Your task to perform on an android device: change notification settings in the gmail app Image 0: 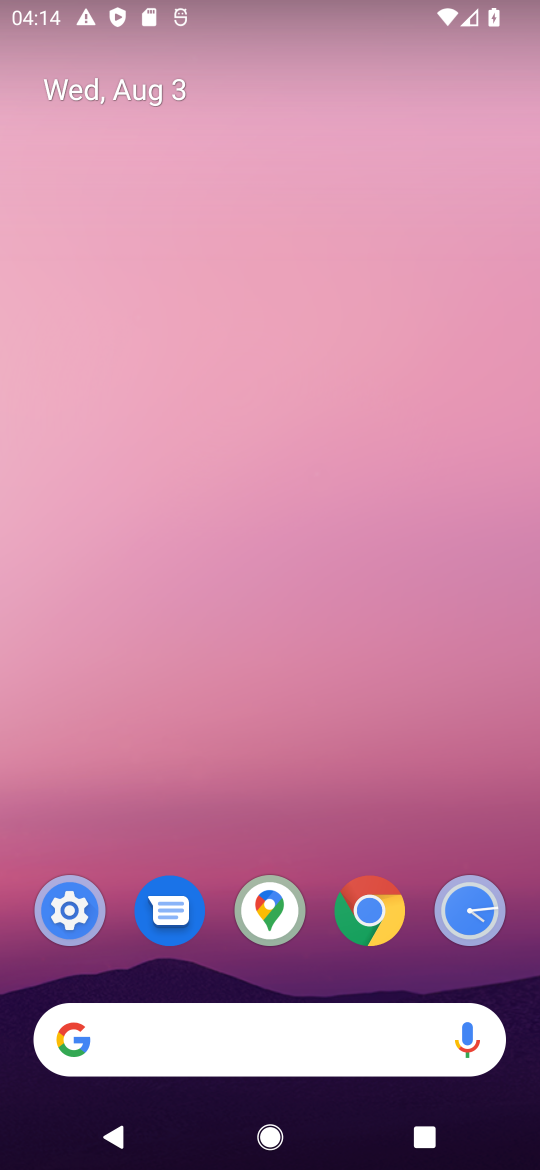
Step 0: press home button
Your task to perform on an android device: change notification settings in the gmail app Image 1: 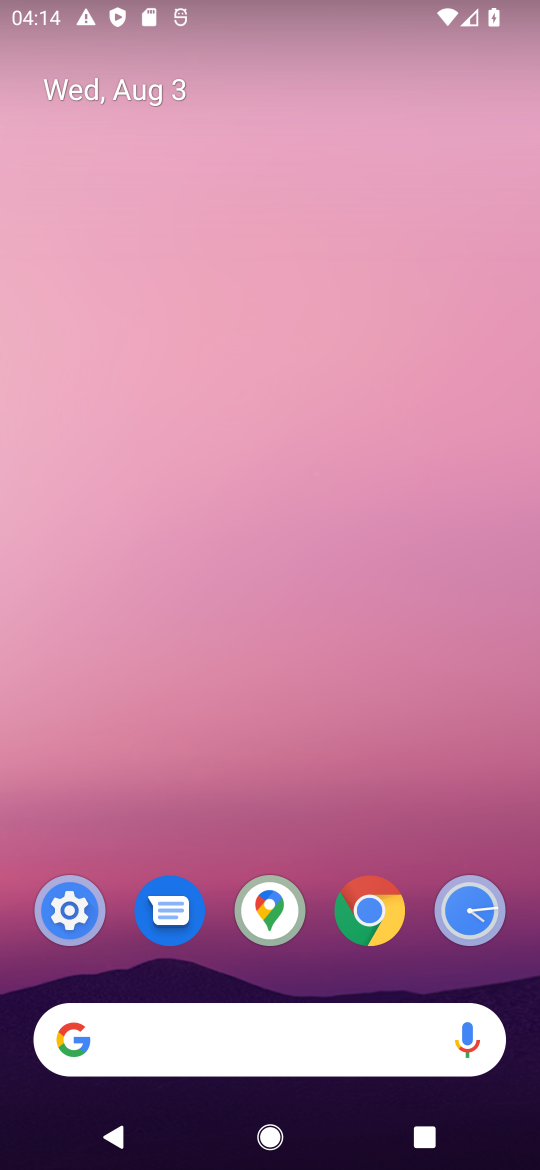
Step 1: drag from (312, 870) to (352, 55)
Your task to perform on an android device: change notification settings in the gmail app Image 2: 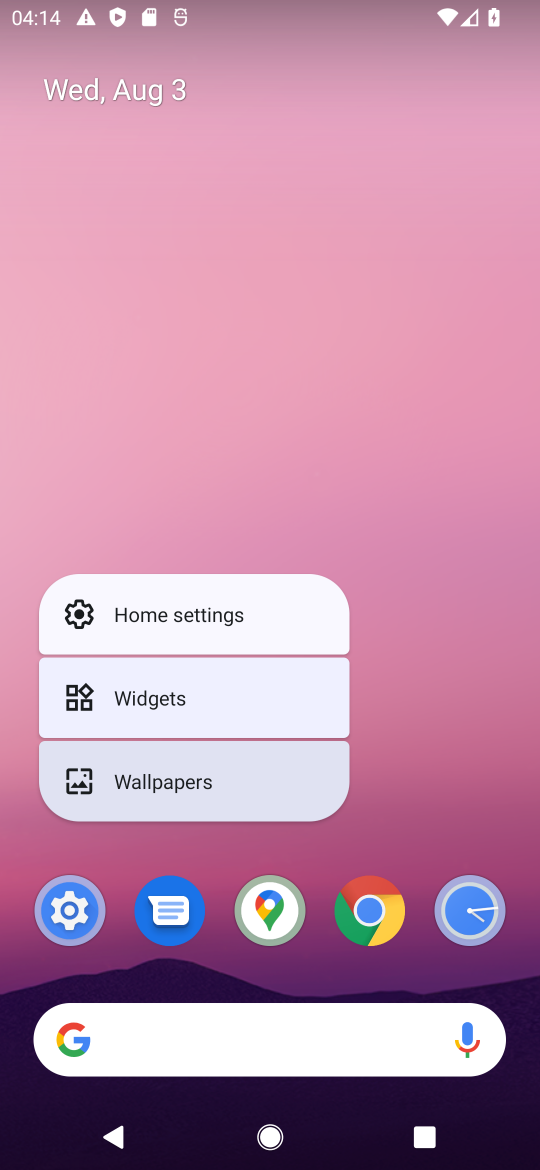
Step 2: click (440, 736)
Your task to perform on an android device: change notification settings in the gmail app Image 3: 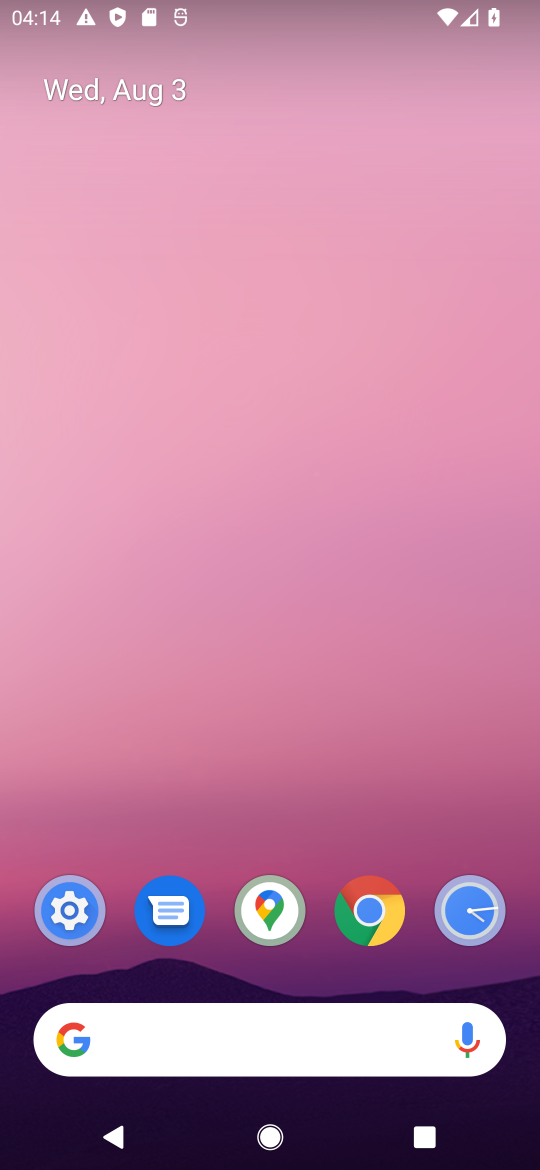
Step 3: drag from (427, 851) to (442, 61)
Your task to perform on an android device: change notification settings in the gmail app Image 4: 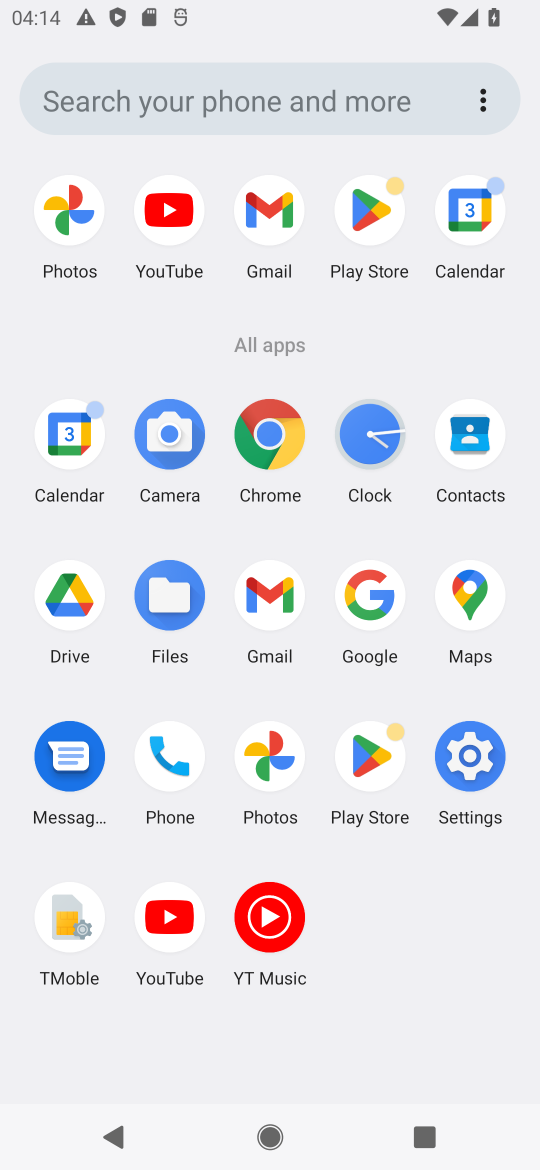
Step 4: click (268, 582)
Your task to perform on an android device: change notification settings in the gmail app Image 5: 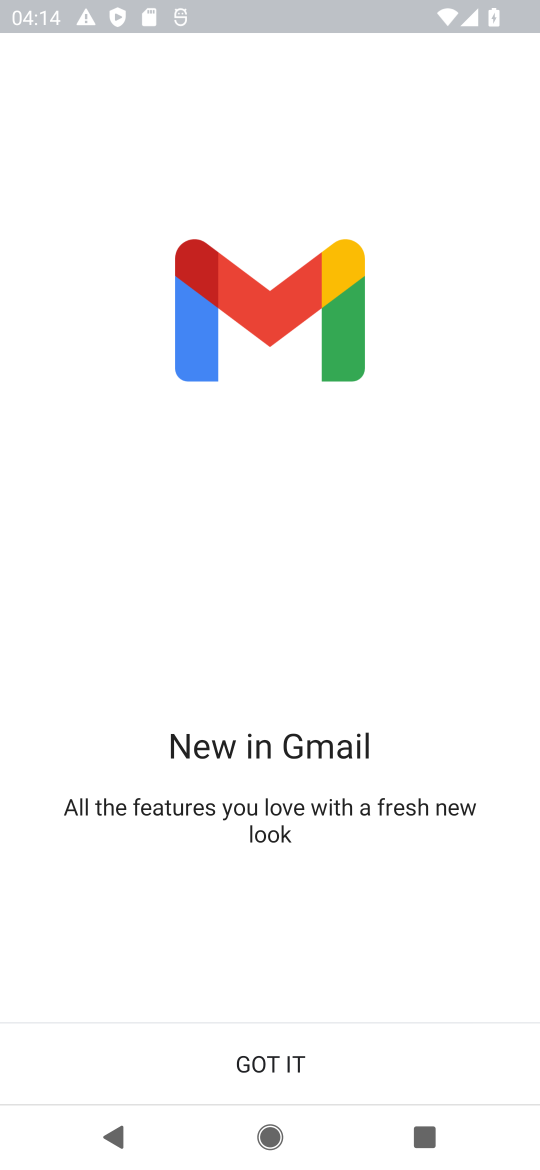
Step 5: click (279, 1072)
Your task to perform on an android device: change notification settings in the gmail app Image 6: 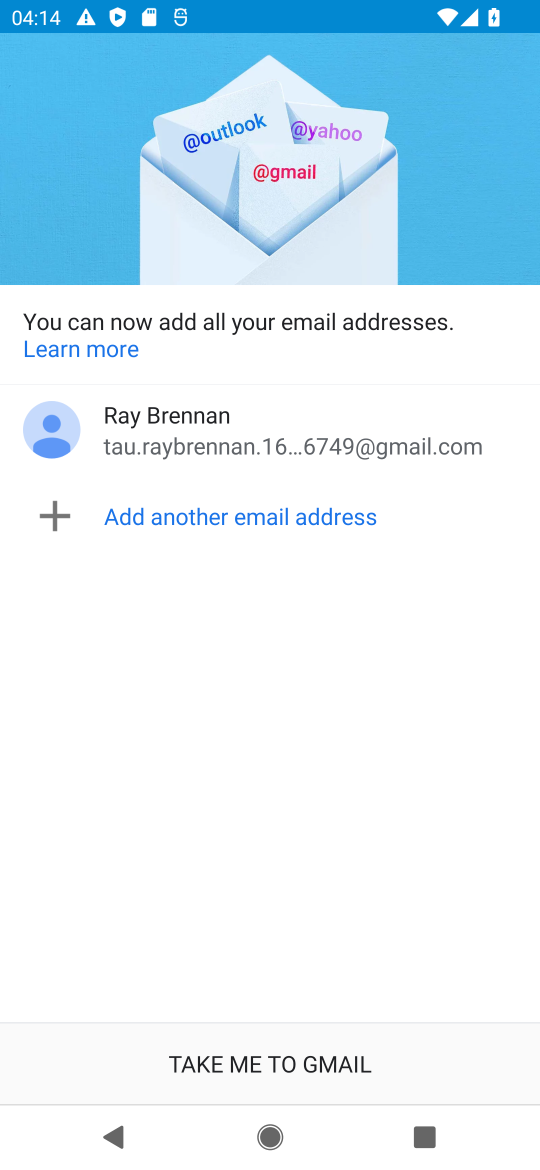
Step 6: click (260, 1076)
Your task to perform on an android device: change notification settings in the gmail app Image 7: 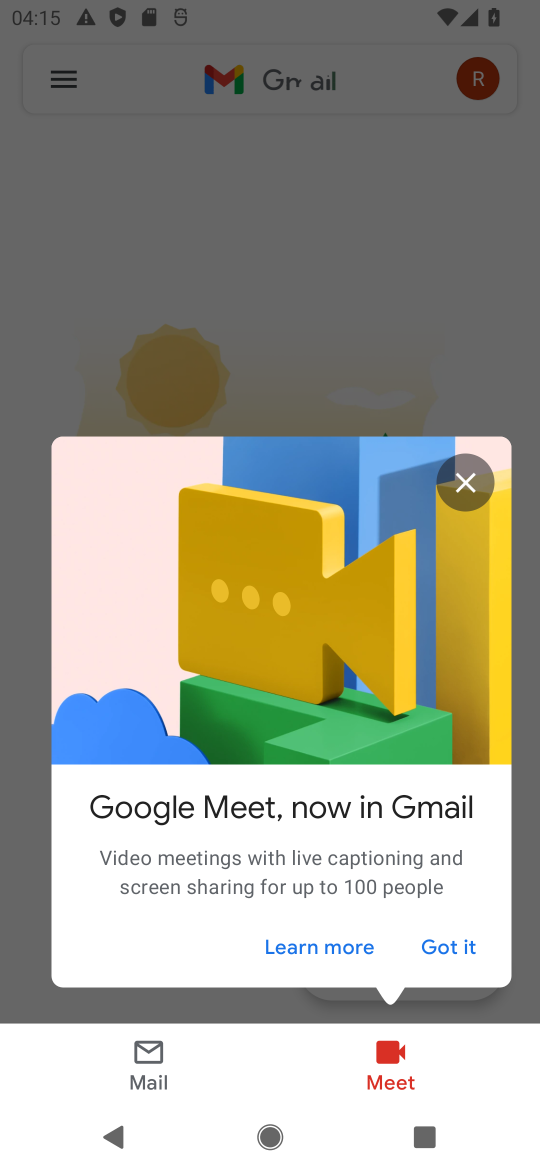
Step 7: click (451, 956)
Your task to perform on an android device: change notification settings in the gmail app Image 8: 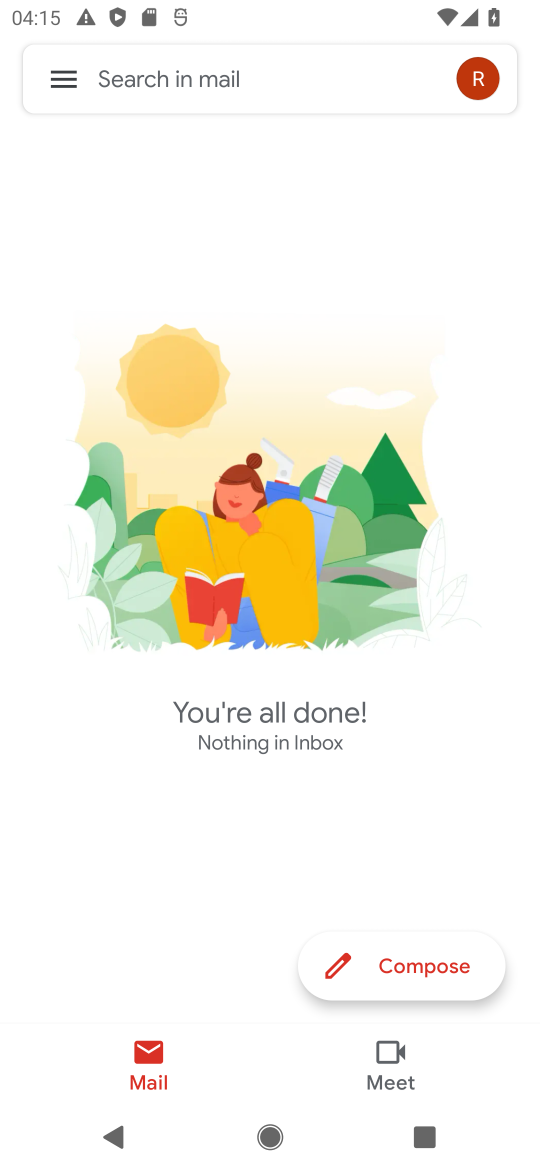
Step 8: click (52, 79)
Your task to perform on an android device: change notification settings in the gmail app Image 9: 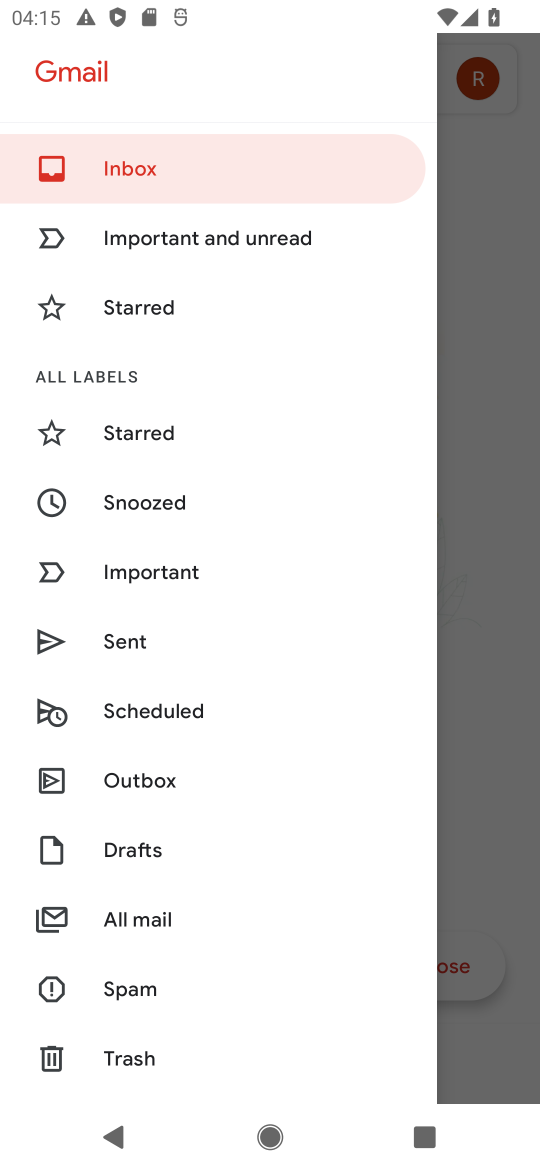
Step 9: drag from (175, 1053) to (203, 176)
Your task to perform on an android device: change notification settings in the gmail app Image 10: 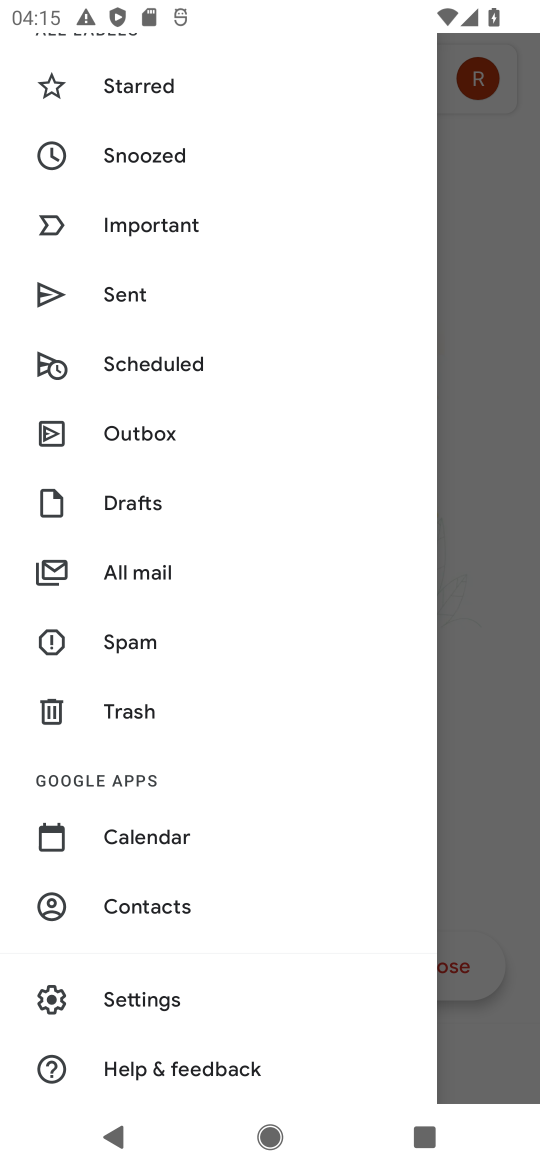
Step 10: click (197, 991)
Your task to perform on an android device: change notification settings in the gmail app Image 11: 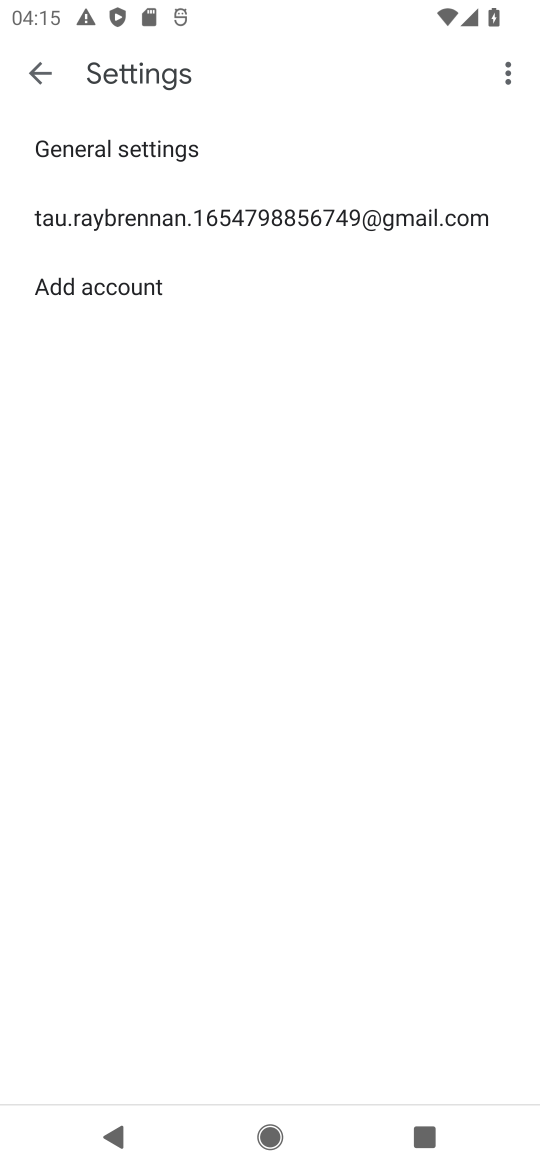
Step 11: click (201, 136)
Your task to perform on an android device: change notification settings in the gmail app Image 12: 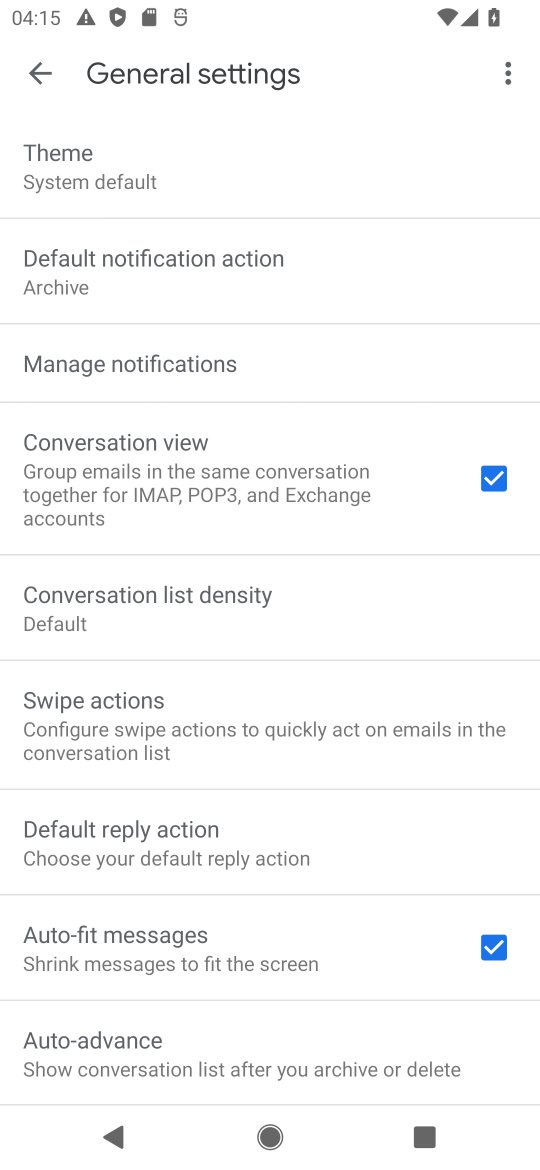
Step 12: click (193, 369)
Your task to perform on an android device: change notification settings in the gmail app Image 13: 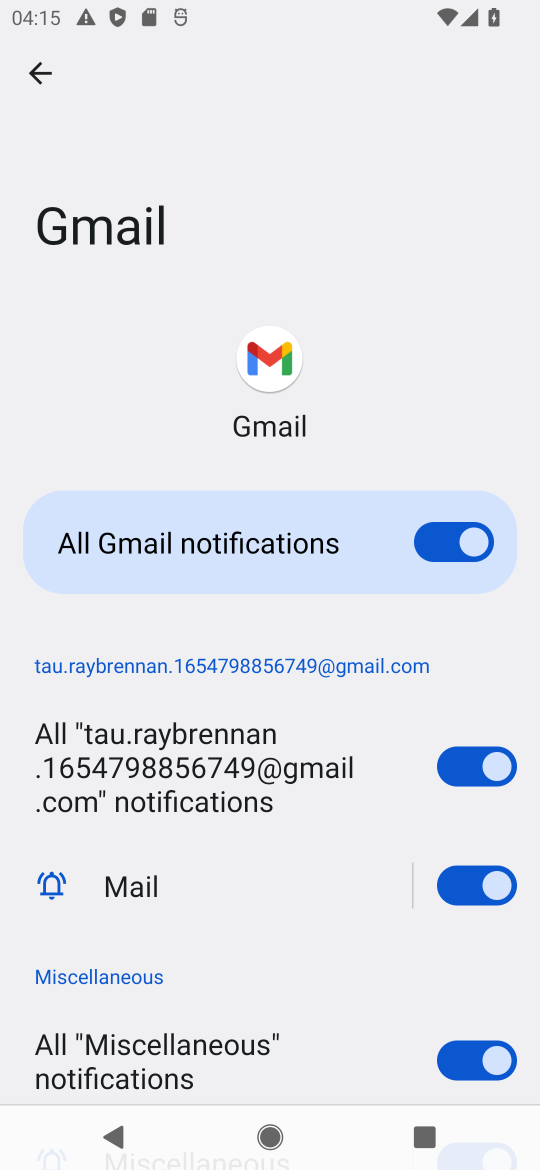
Step 13: click (438, 538)
Your task to perform on an android device: change notification settings in the gmail app Image 14: 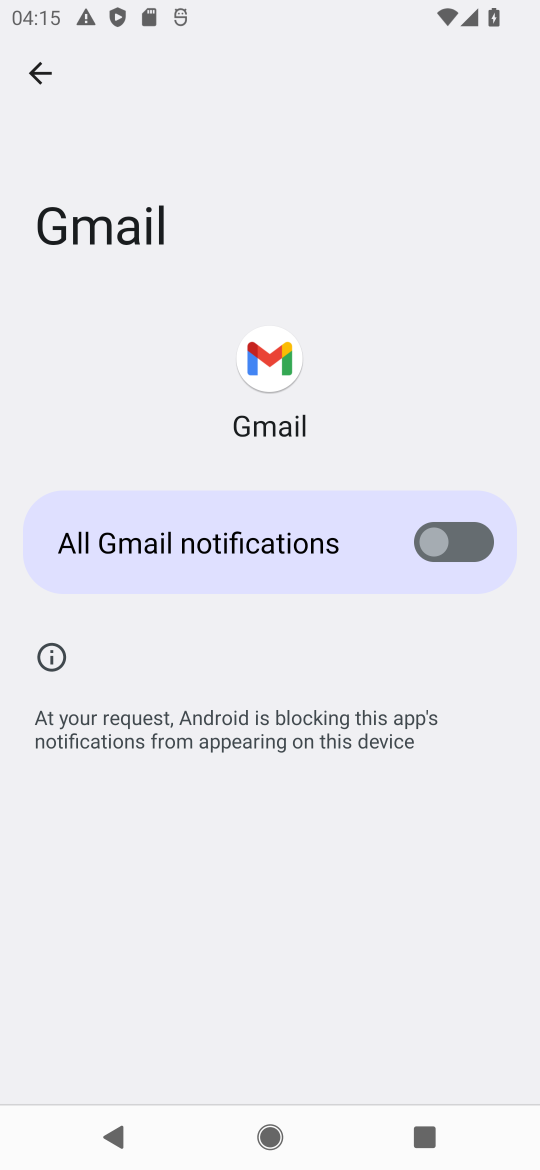
Step 14: task complete